Your task to perform on an android device: turn on bluetooth scan Image 0: 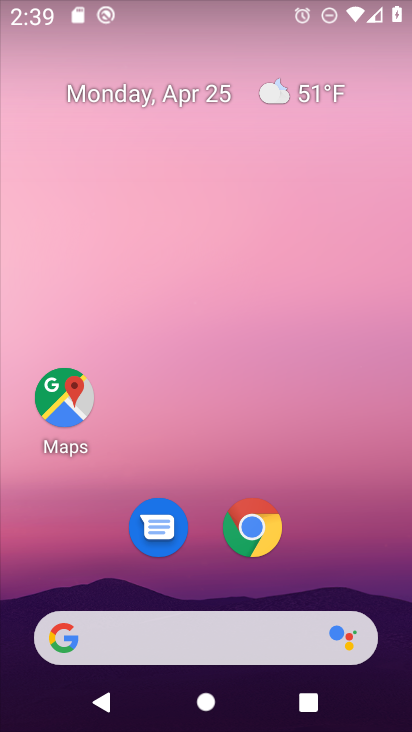
Step 0: drag from (321, 503) to (223, 62)
Your task to perform on an android device: turn on bluetooth scan Image 1: 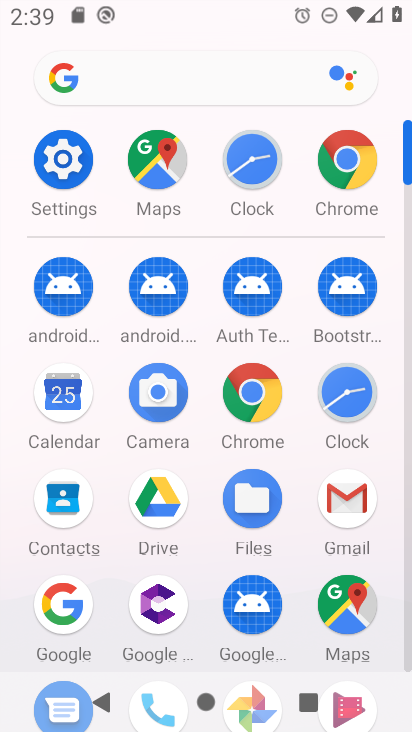
Step 1: drag from (17, 543) to (13, 297)
Your task to perform on an android device: turn on bluetooth scan Image 2: 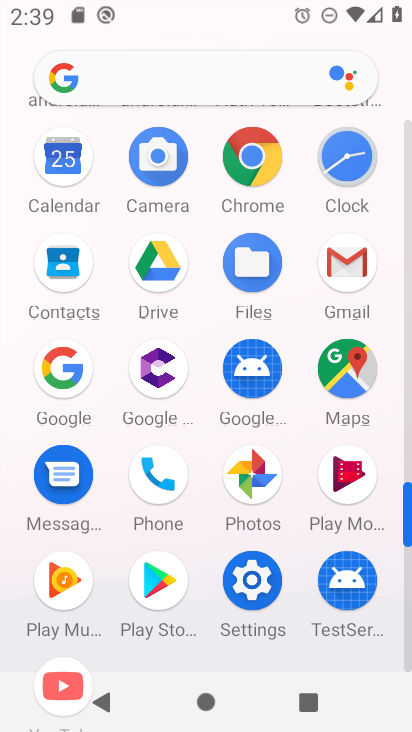
Step 2: click (247, 578)
Your task to perform on an android device: turn on bluetooth scan Image 3: 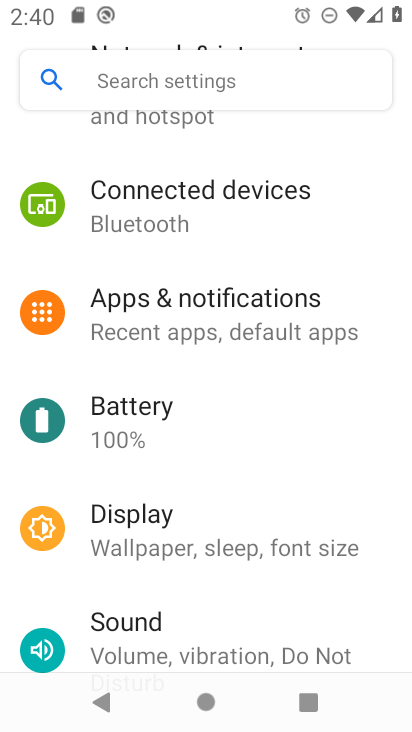
Step 3: drag from (317, 228) to (316, 557)
Your task to perform on an android device: turn on bluetooth scan Image 4: 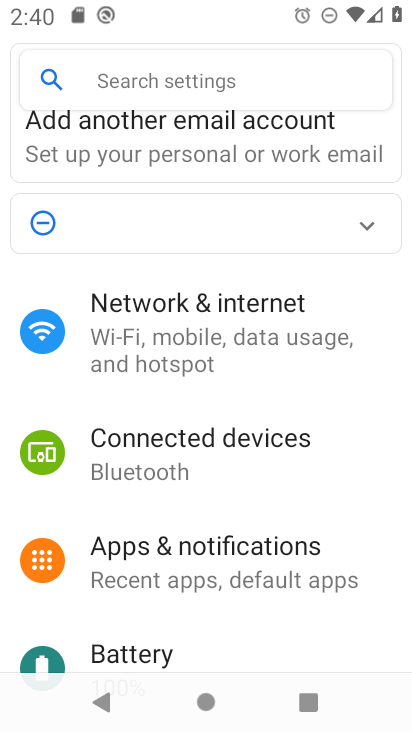
Step 4: click (232, 326)
Your task to perform on an android device: turn on bluetooth scan Image 5: 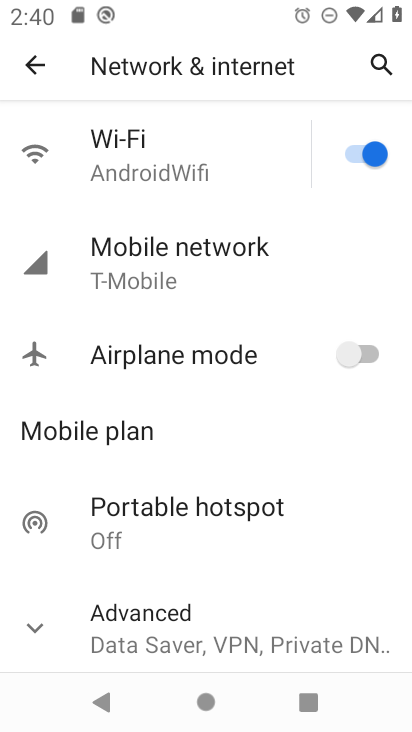
Step 5: drag from (214, 583) to (193, 147)
Your task to perform on an android device: turn on bluetooth scan Image 6: 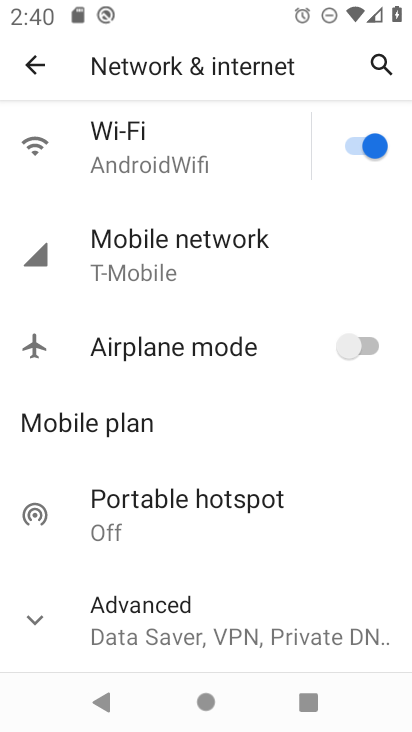
Step 6: click (53, 613)
Your task to perform on an android device: turn on bluetooth scan Image 7: 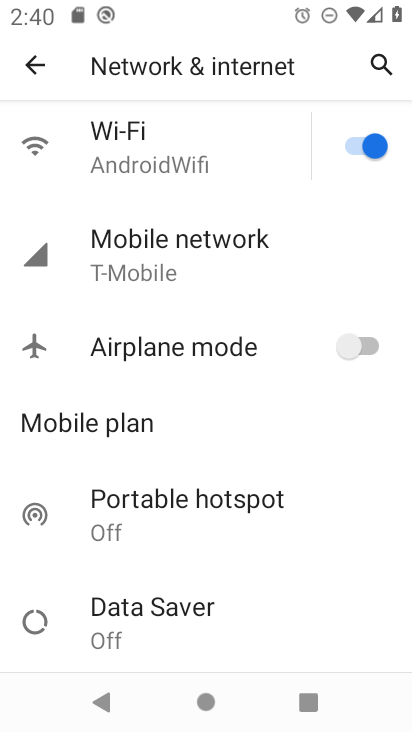
Step 7: click (43, 55)
Your task to perform on an android device: turn on bluetooth scan Image 8: 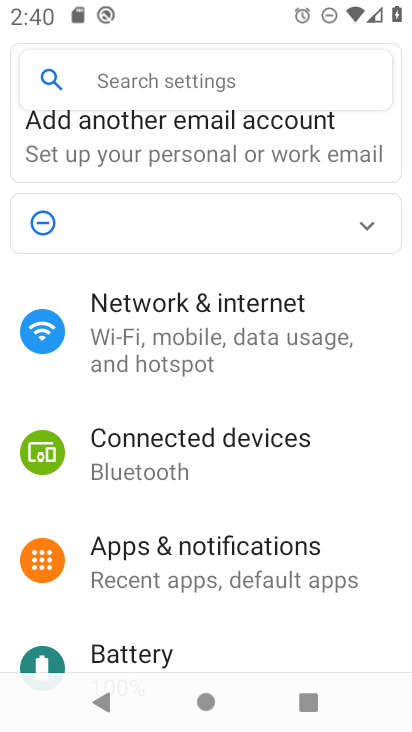
Step 8: drag from (247, 501) to (243, 109)
Your task to perform on an android device: turn on bluetooth scan Image 9: 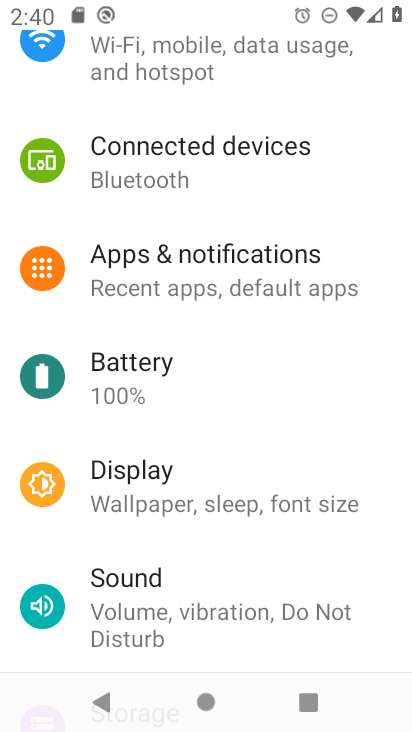
Step 9: drag from (250, 541) to (244, 222)
Your task to perform on an android device: turn on bluetooth scan Image 10: 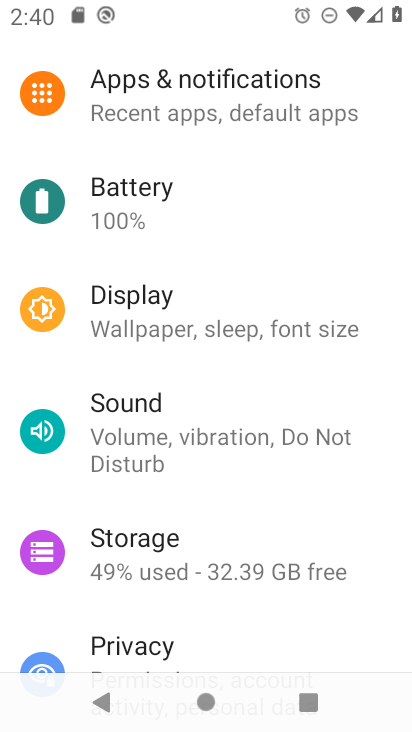
Step 10: drag from (272, 549) to (280, 108)
Your task to perform on an android device: turn on bluetooth scan Image 11: 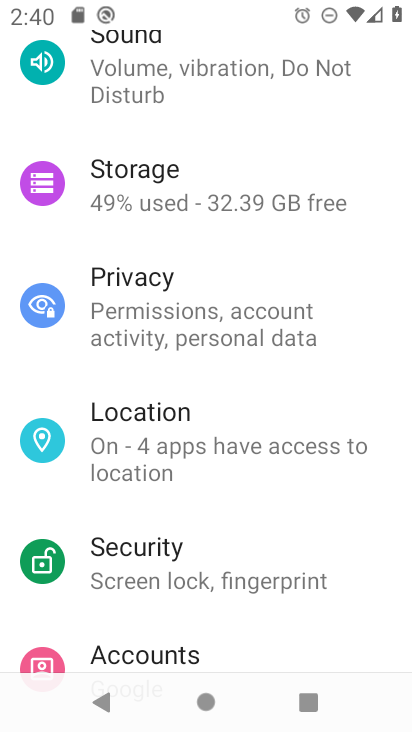
Step 11: click (206, 428)
Your task to perform on an android device: turn on bluetooth scan Image 12: 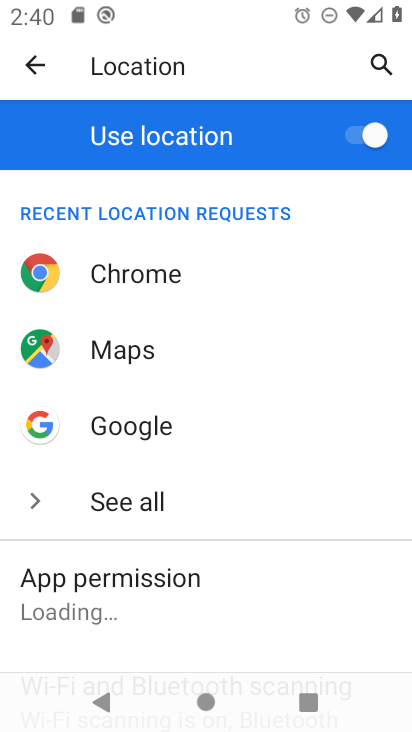
Step 12: drag from (289, 531) to (299, 129)
Your task to perform on an android device: turn on bluetooth scan Image 13: 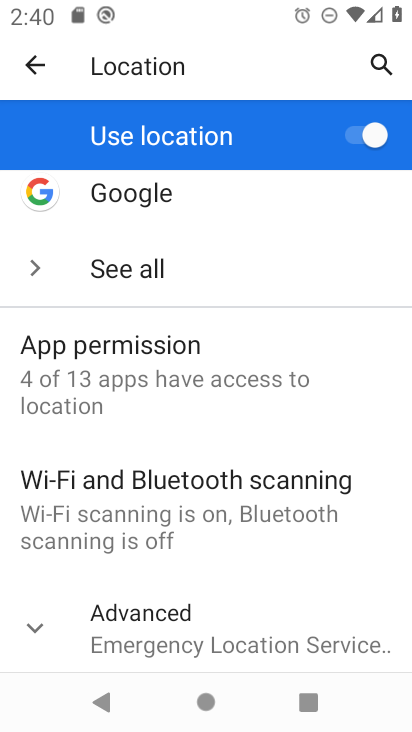
Step 13: click (248, 482)
Your task to perform on an android device: turn on bluetooth scan Image 14: 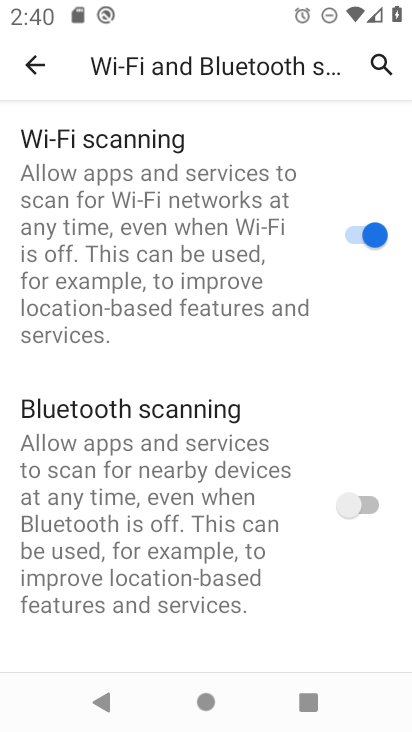
Step 14: click (348, 502)
Your task to perform on an android device: turn on bluetooth scan Image 15: 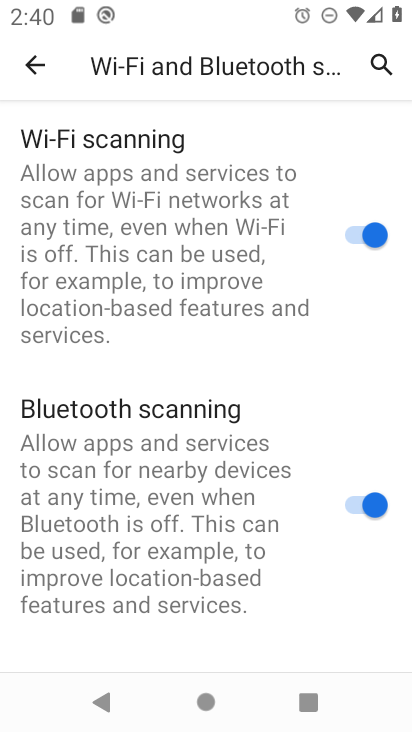
Step 15: task complete